Your task to perform on an android device: Open Amazon Image 0: 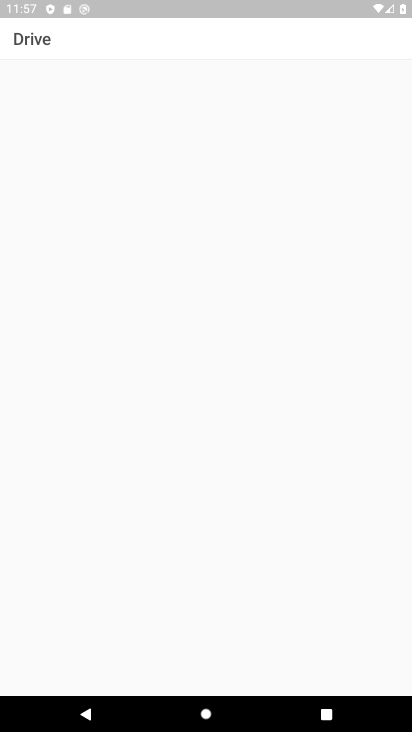
Step 0: press home button
Your task to perform on an android device: Open Amazon Image 1: 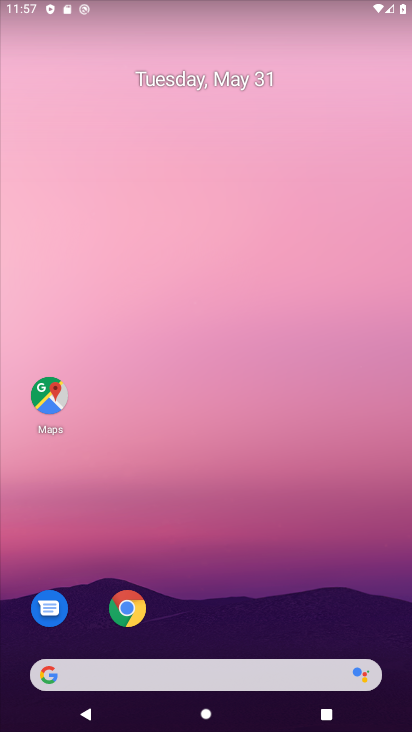
Step 1: click (127, 600)
Your task to perform on an android device: Open Amazon Image 2: 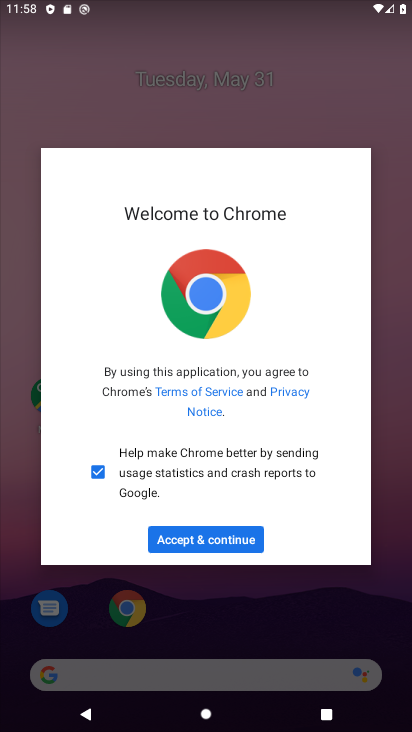
Step 2: click (209, 526)
Your task to perform on an android device: Open Amazon Image 3: 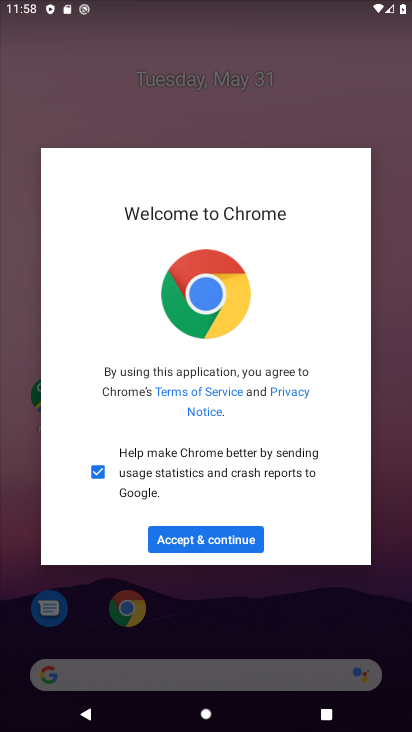
Step 3: click (213, 542)
Your task to perform on an android device: Open Amazon Image 4: 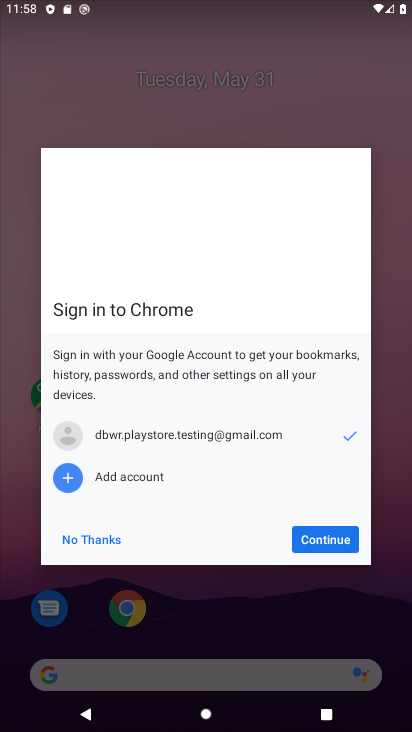
Step 4: click (344, 545)
Your task to perform on an android device: Open Amazon Image 5: 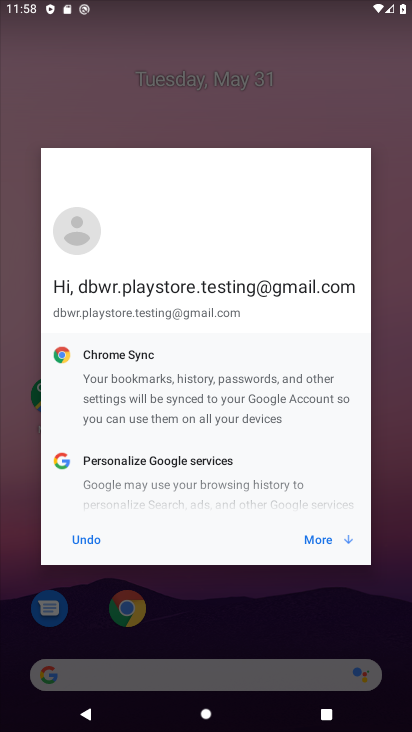
Step 5: click (325, 534)
Your task to perform on an android device: Open Amazon Image 6: 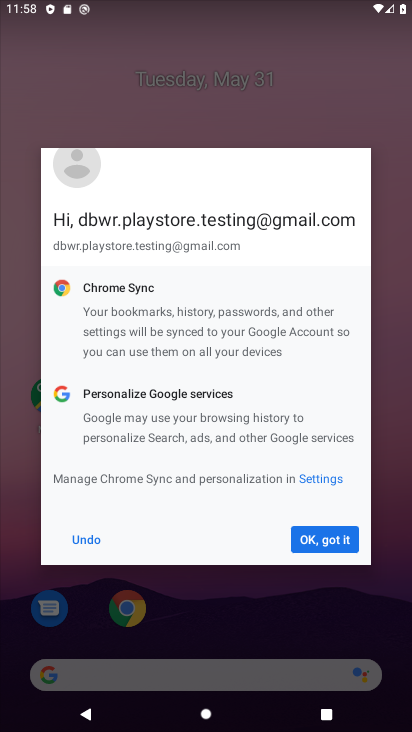
Step 6: click (323, 534)
Your task to perform on an android device: Open Amazon Image 7: 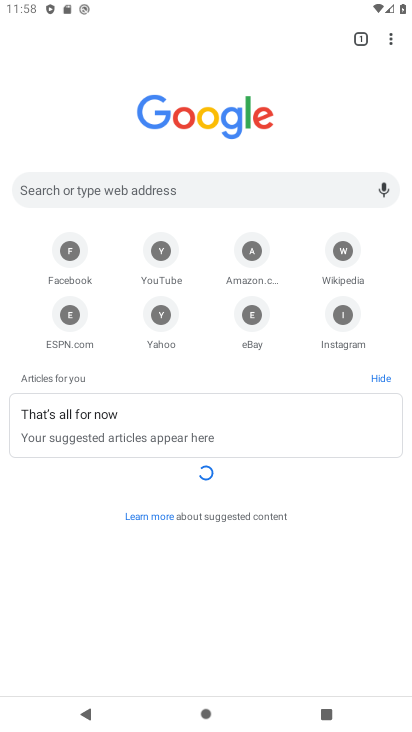
Step 7: click (263, 269)
Your task to perform on an android device: Open Amazon Image 8: 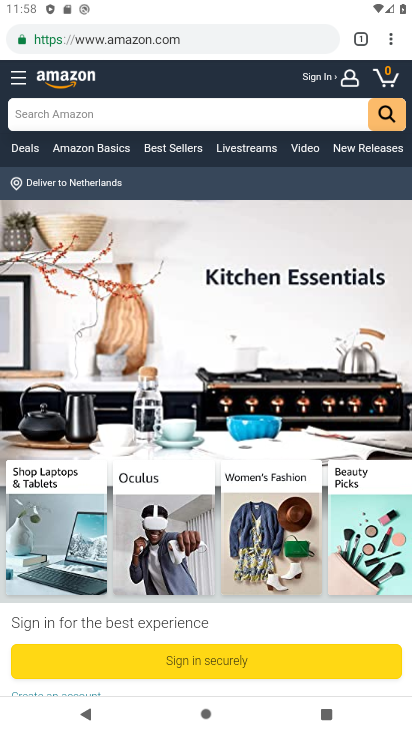
Step 8: task complete